Your task to perform on an android device: Open the phone app and click the voicemail tab. Image 0: 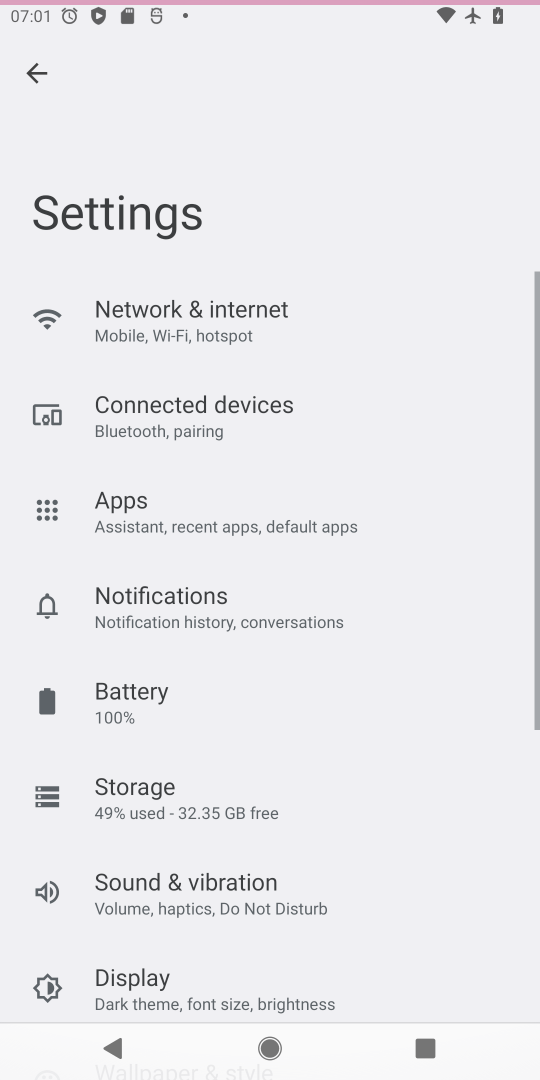
Step 0: press home button
Your task to perform on an android device: Open the phone app and click the voicemail tab. Image 1: 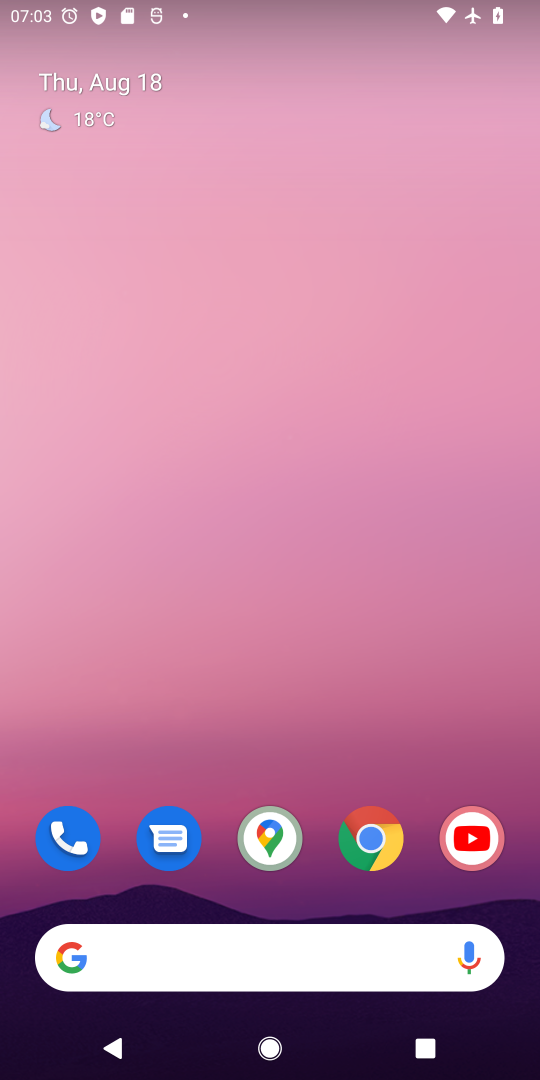
Step 1: click (67, 867)
Your task to perform on an android device: Open the phone app and click the voicemail tab. Image 2: 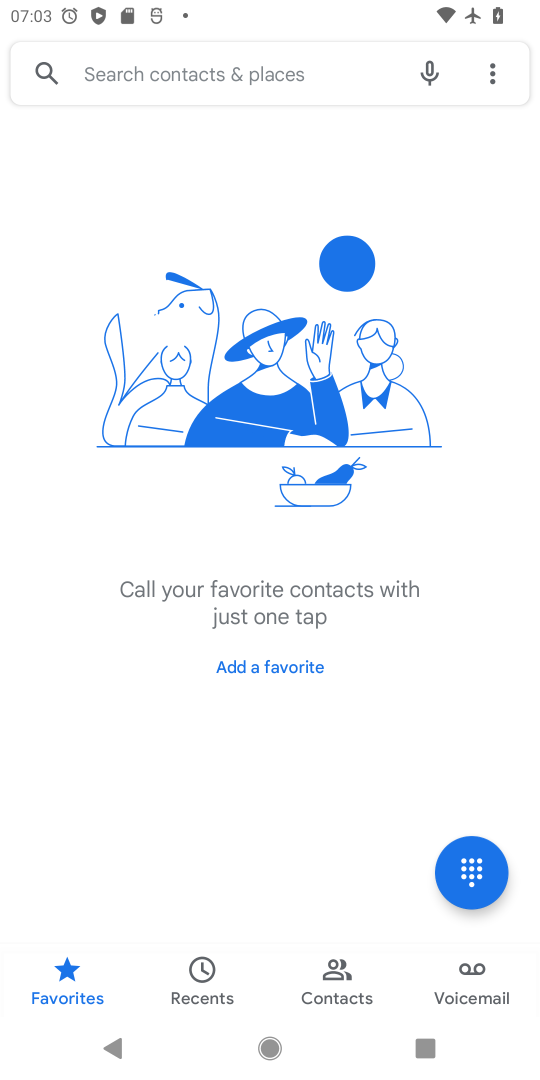
Step 2: click (454, 986)
Your task to perform on an android device: Open the phone app and click the voicemail tab. Image 3: 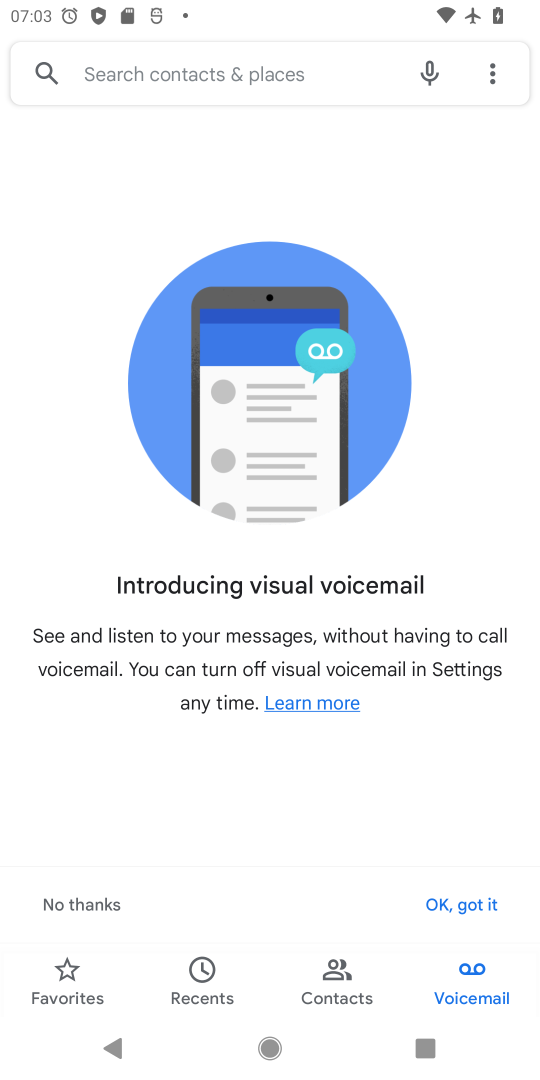
Step 3: task complete